Your task to perform on an android device: Open privacy settings Image 0: 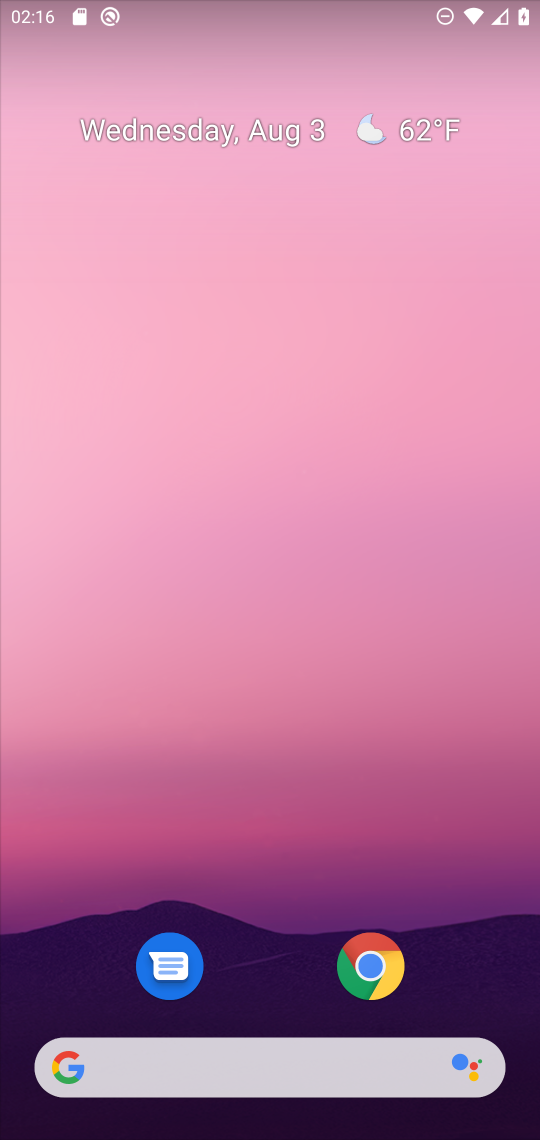
Step 0: drag from (280, 976) to (213, 326)
Your task to perform on an android device: Open privacy settings Image 1: 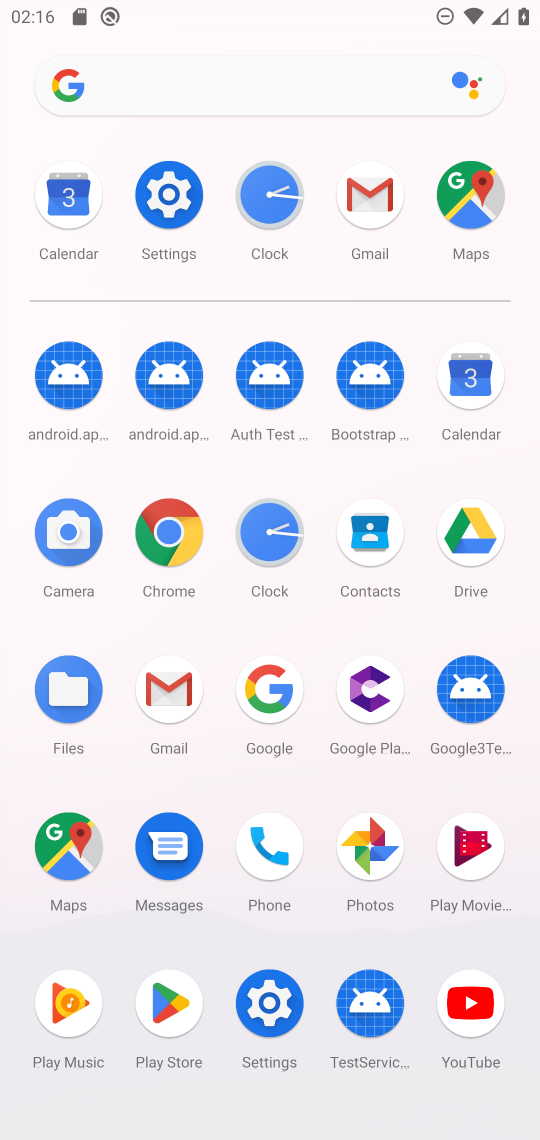
Step 1: click (184, 190)
Your task to perform on an android device: Open privacy settings Image 2: 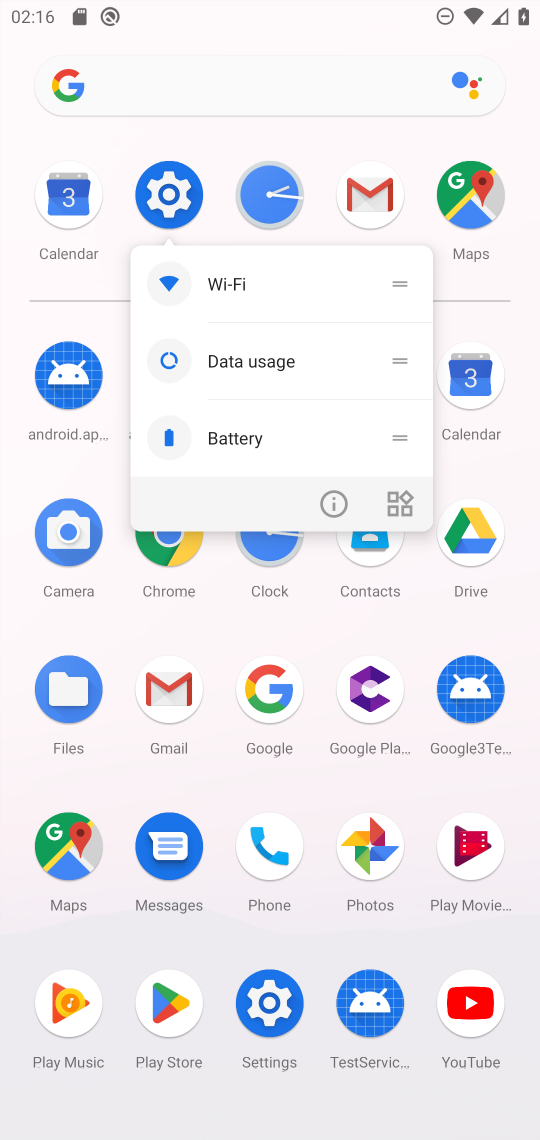
Step 2: click (184, 190)
Your task to perform on an android device: Open privacy settings Image 3: 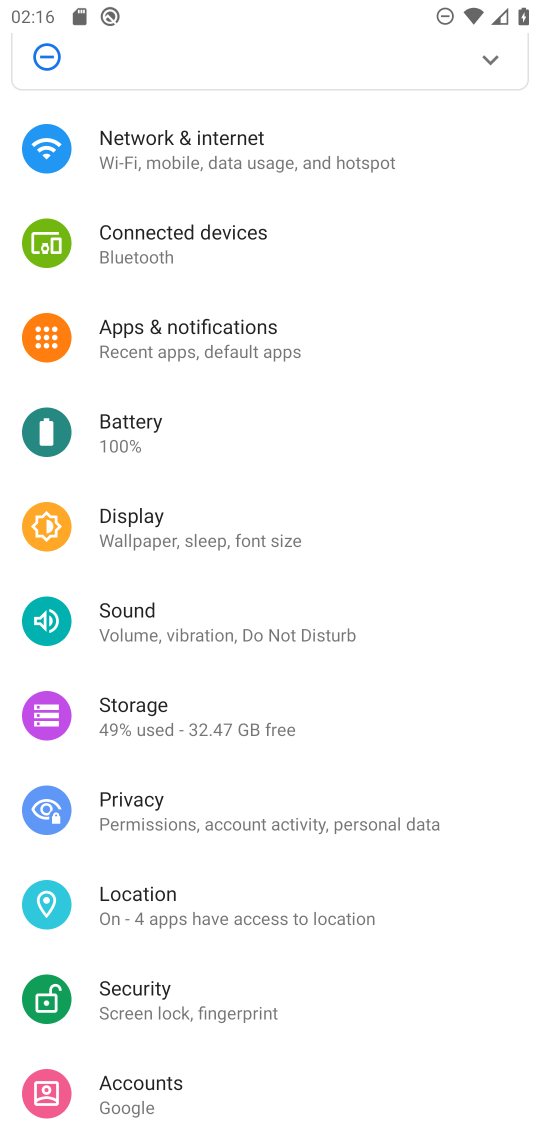
Step 3: click (244, 810)
Your task to perform on an android device: Open privacy settings Image 4: 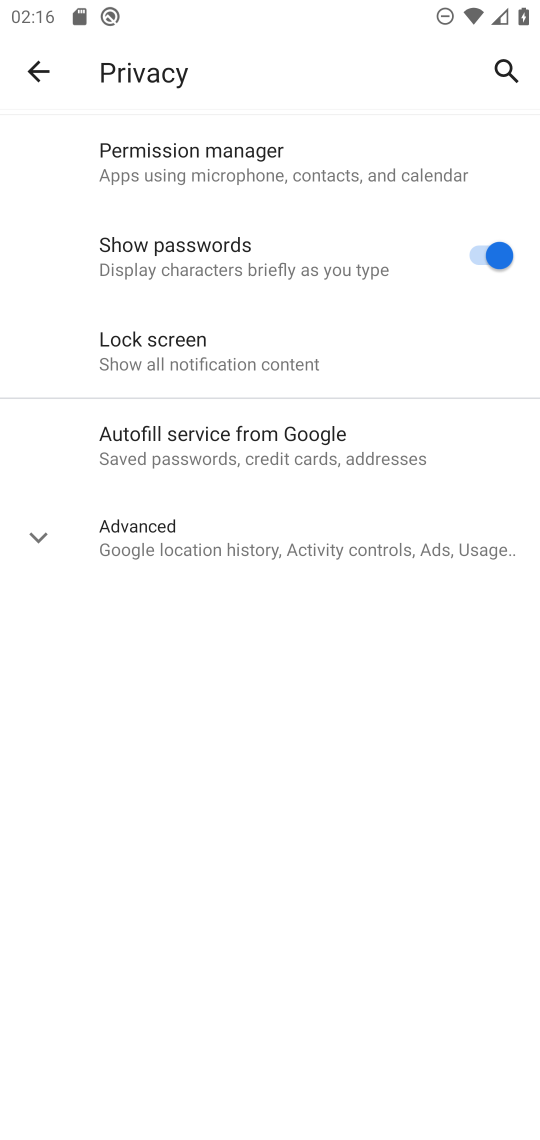
Step 4: task complete